Your task to perform on an android device: toggle priority inbox in the gmail app Image 0: 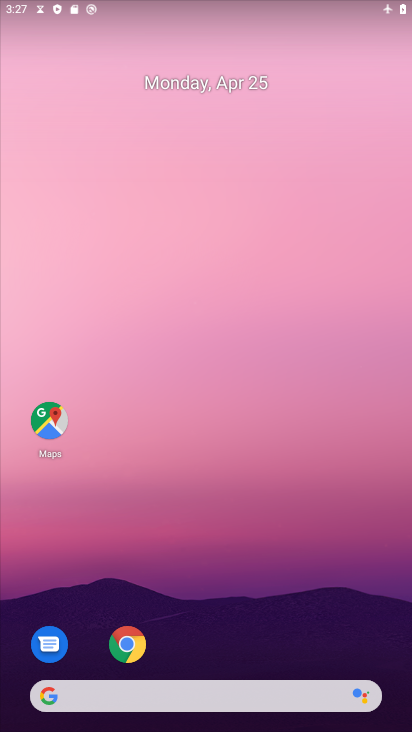
Step 0: press home button
Your task to perform on an android device: toggle priority inbox in the gmail app Image 1: 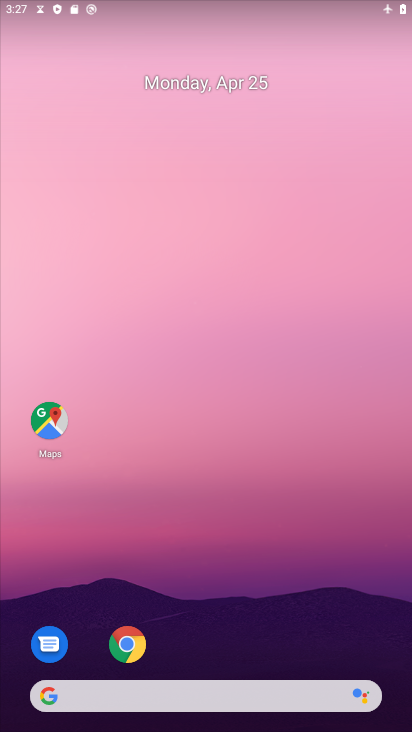
Step 1: drag from (249, 584) to (256, 84)
Your task to perform on an android device: toggle priority inbox in the gmail app Image 2: 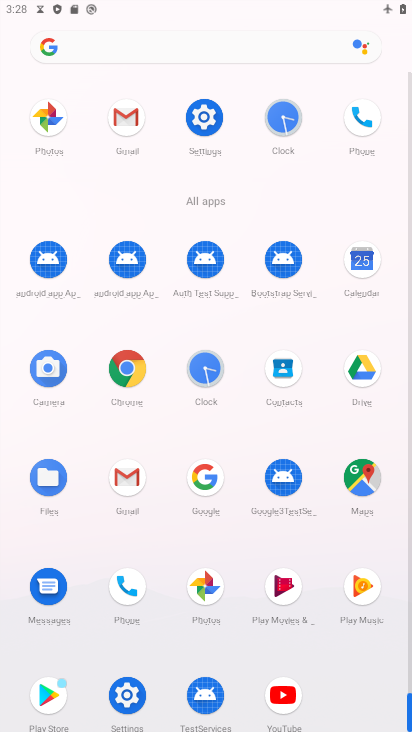
Step 2: click (130, 474)
Your task to perform on an android device: toggle priority inbox in the gmail app Image 3: 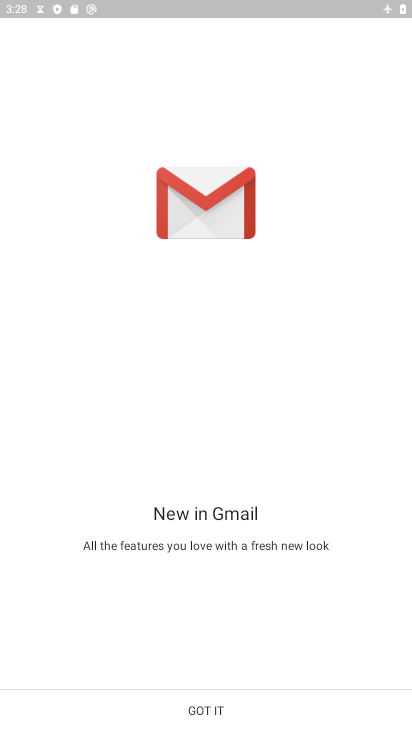
Step 3: click (206, 717)
Your task to perform on an android device: toggle priority inbox in the gmail app Image 4: 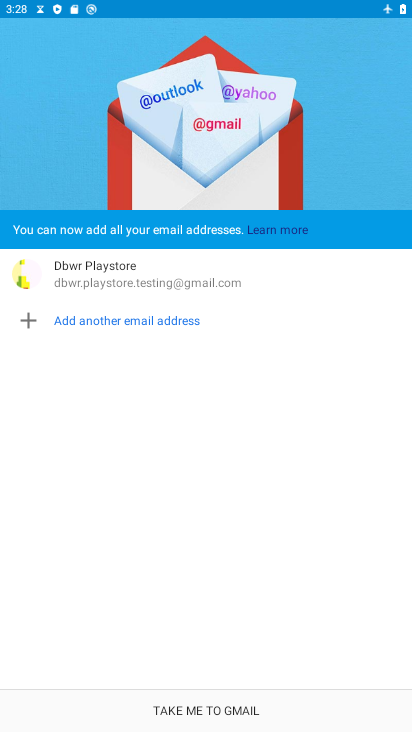
Step 4: click (191, 714)
Your task to perform on an android device: toggle priority inbox in the gmail app Image 5: 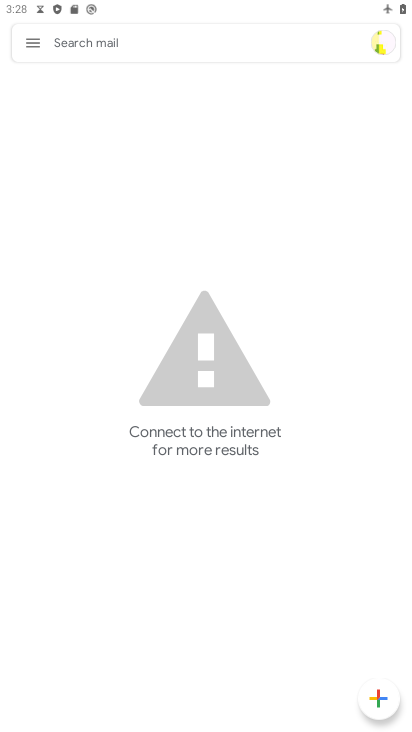
Step 5: click (32, 46)
Your task to perform on an android device: toggle priority inbox in the gmail app Image 6: 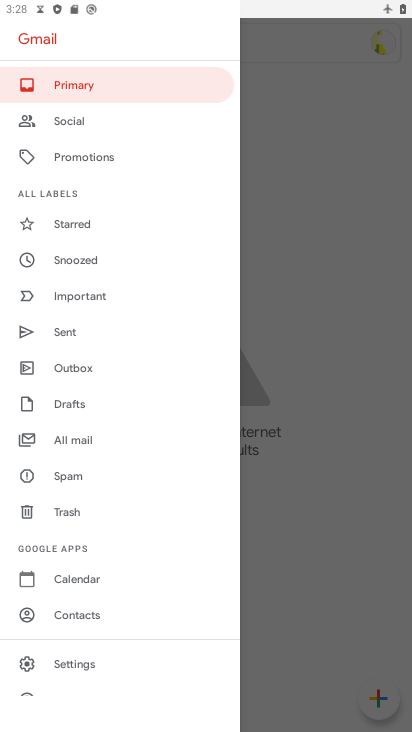
Step 6: click (106, 660)
Your task to perform on an android device: toggle priority inbox in the gmail app Image 7: 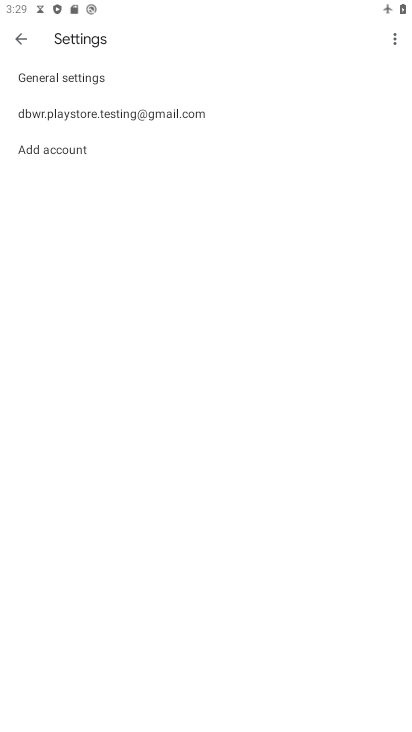
Step 7: click (101, 109)
Your task to perform on an android device: toggle priority inbox in the gmail app Image 8: 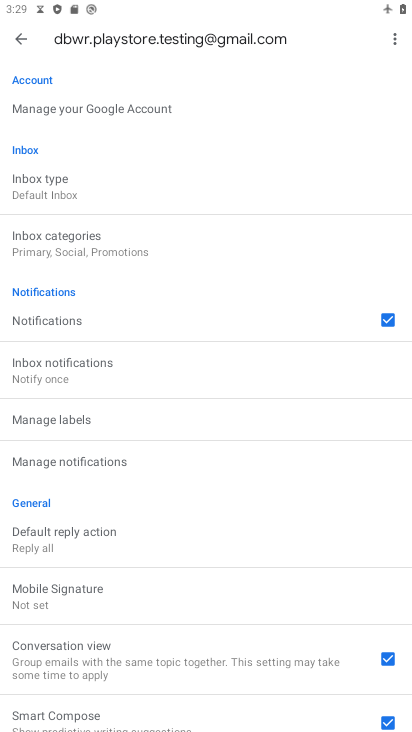
Step 8: click (93, 182)
Your task to perform on an android device: toggle priority inbox in the gmail app Image 9: 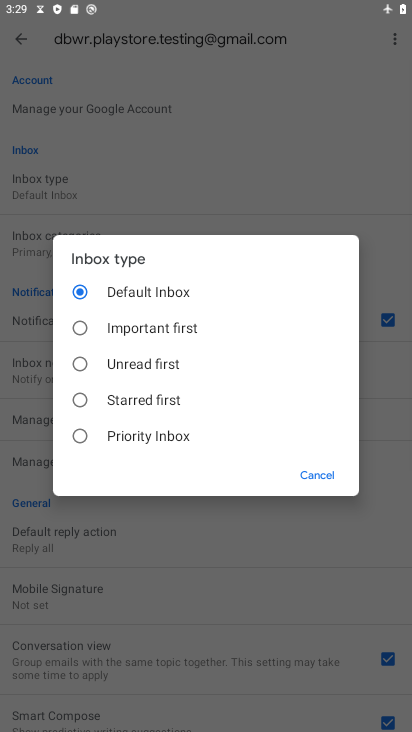
Step 9: click (69, 442)
Your task to perform on an android device: toggle priority inbox in the gmail app Image 10: 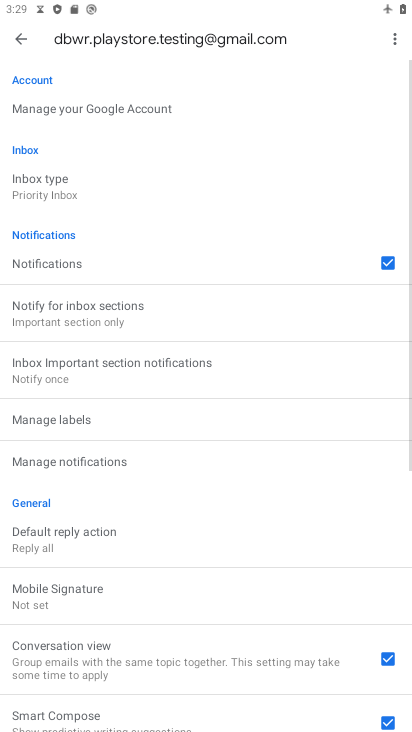
Step 10: task complete